Your task to perform on an android device: see creations saved in the google photos Image 0: 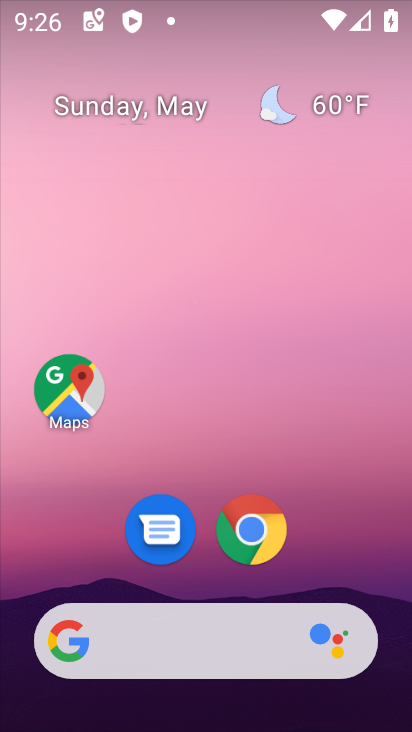
Step 0: drag from (386, 548) to (373, 172)
Your task to perform on an android device: see creations saved in the google photos Image 1: 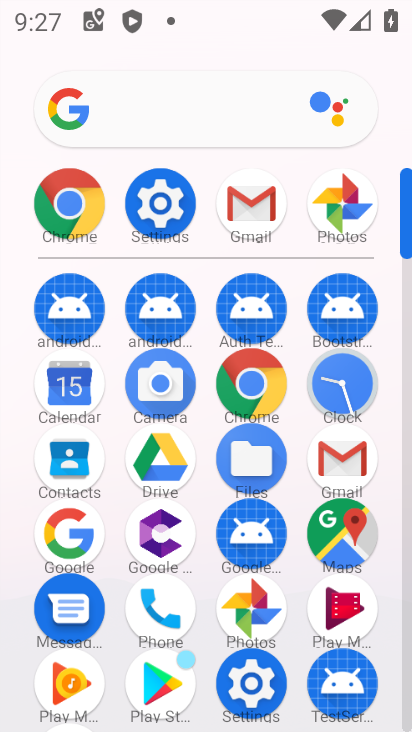
Step 1: click (263, 617)
Your task to perform on an android device: see creations saved in the google photos Image 2: 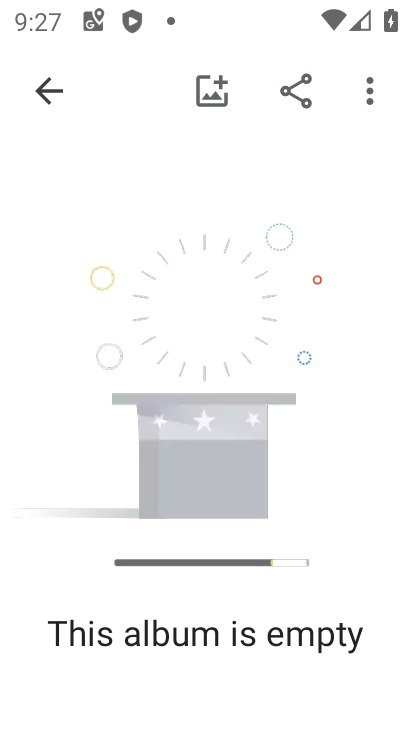
Step 2: click (42, 90)
Your task to perform on an android device: see creations saved in the google photos Image 3: 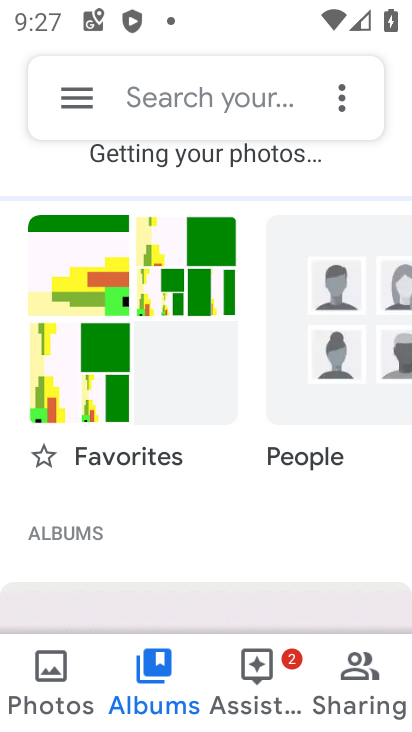
Step 3: click (207, 83)
Your task to perform on an android device: see creations saved in the google photos Image 4: 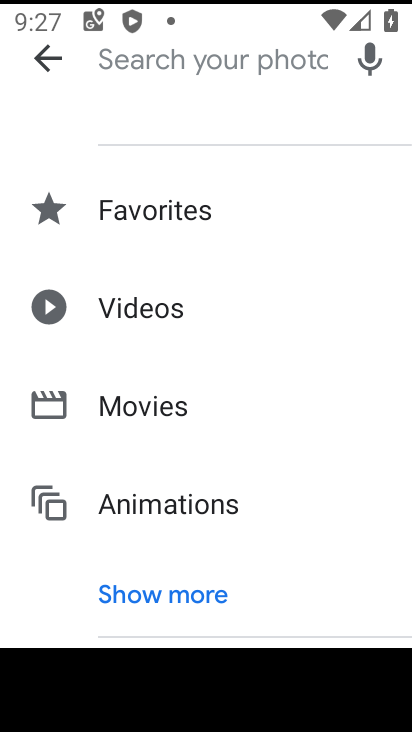
Step 4: drag from (316, 557) to (321, 343)
Your task to perform on an android device: see creations saved in the google photos Image 5: 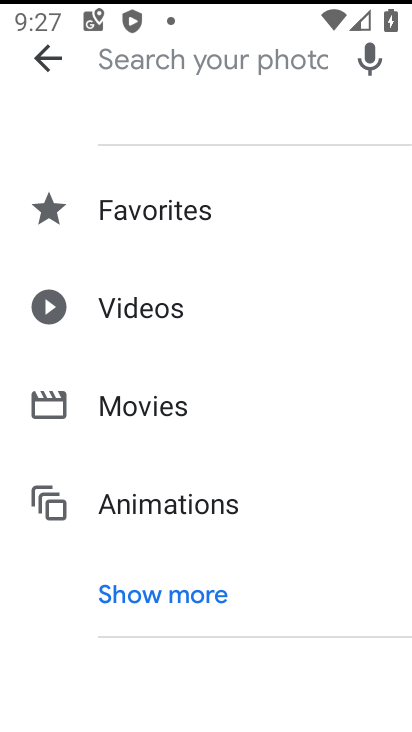
Step 5: drag from (299, 601) to (285, 288)
Your task to perform on an android device: see creations saved in the google photos Image 6: 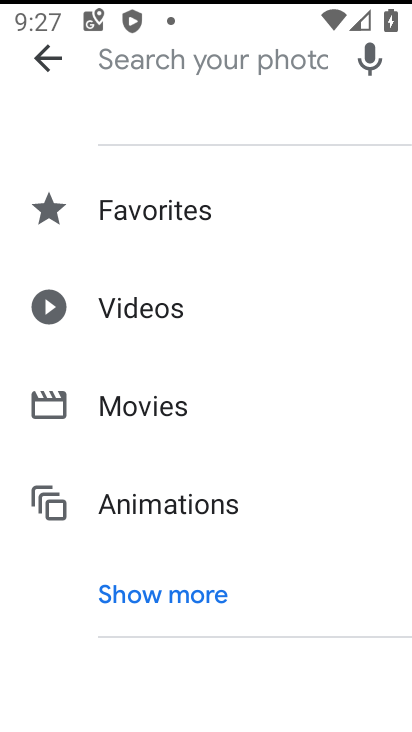
Step 6: click (195, 594)
Your task to perform on an android device: see creations saved in the google photos Image 7: 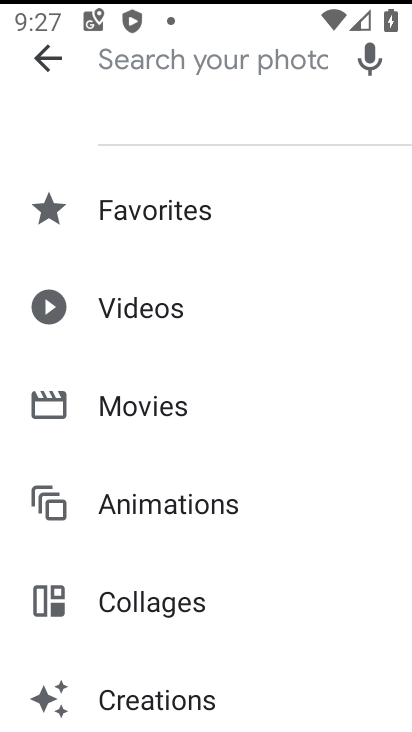
Step 7: drag from (312, 627) to (312, 438)
Your task to perform on an android device: see creations saved in the google photos Image 8: 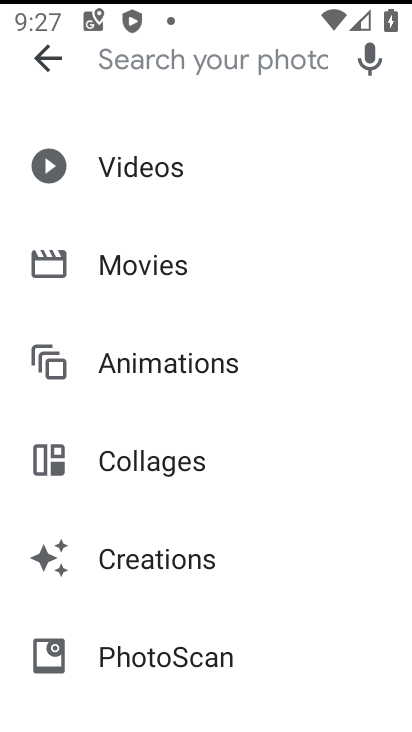
Step 8: click (193, 566)
Your task to perform on an android device: see creations saved in the google photos Image 9: 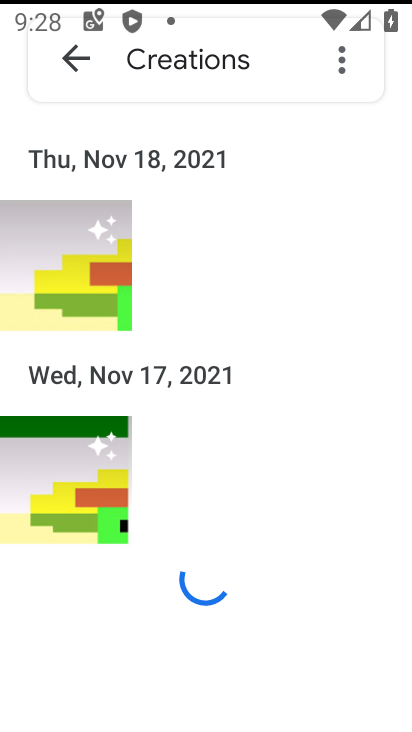
Step 9: task complete